Your task to perform on an android device: Go to Android settings Image 0: 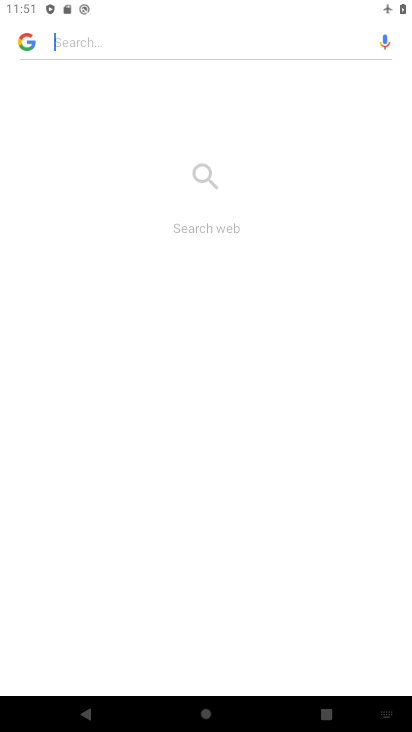
Step 0: press back button
Your task to perform on an android device: Go to Android settings Image 1: 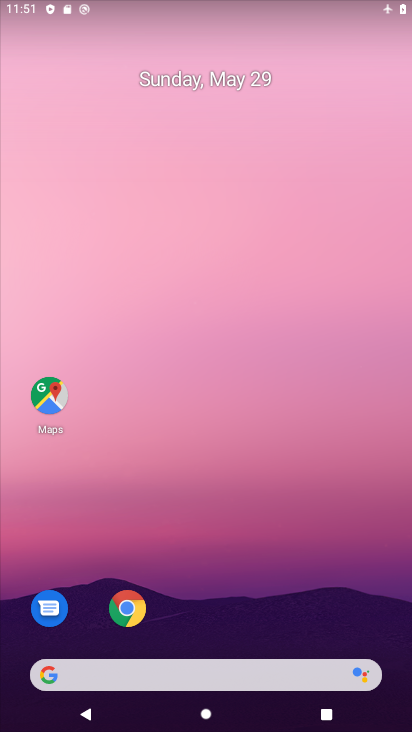
Step 1: drag from (204, 664) to (221, 23)
Your task to perform on an android device: Go to Android settings Image 2: 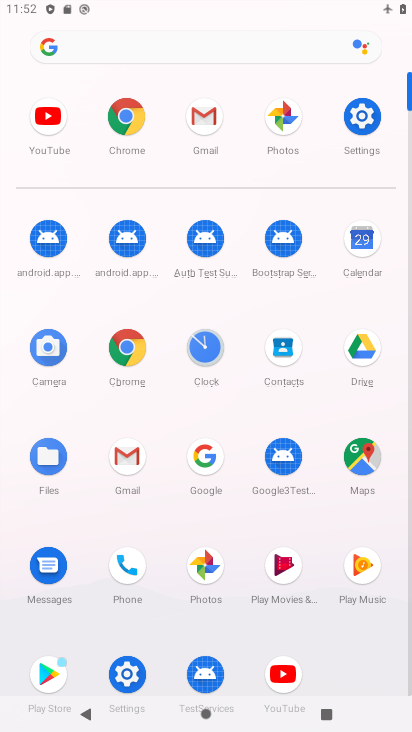
Step 2: click (139, 660)
Your task to perform on an android device: Go to Android settings Image 3: 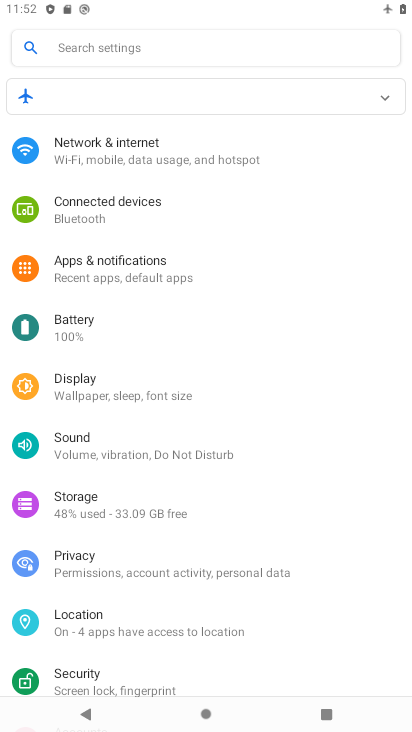
Step 3: task complete